Your task to perform on an android device: open device folders in google photos Image 0: 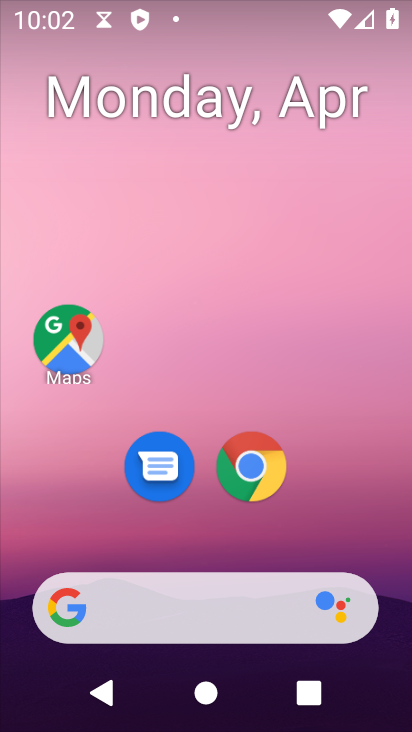
Step 0: drag from (225, 548) to (253, 45)
Your task to perform on an android device: open device folders in google photos Image 1: 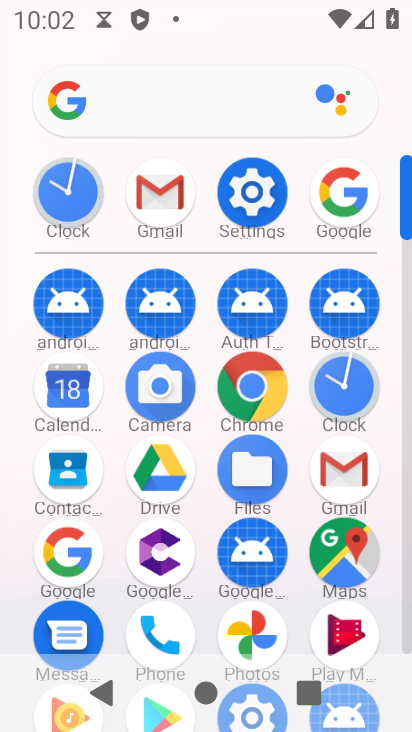
Step 1: drag from (208, 448) to (218, 151)
Your task to perform on an android device: open device folders in google photos Image 2: 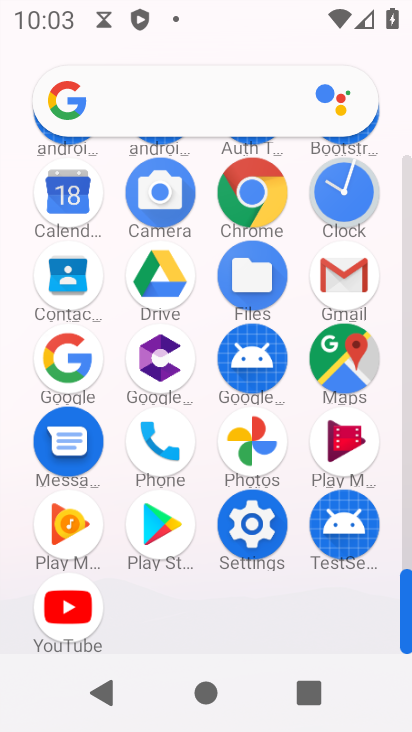
Step 2: click (259, 439)
Your task to perform on an android device: open device folders in google photos Image 3: 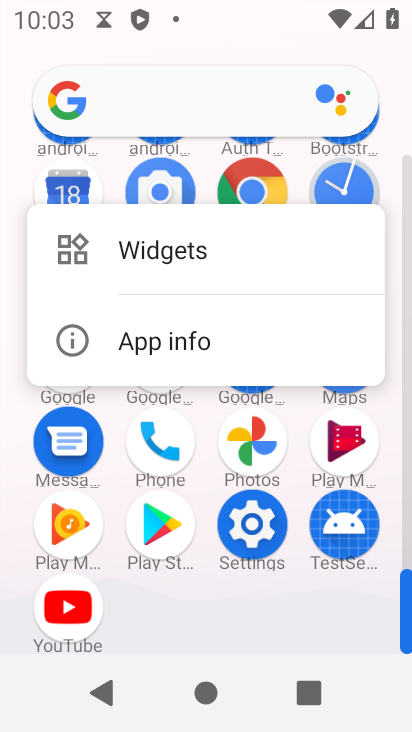
Step 3: click (259, 439)
Your task to perform on an android device: open device folders in google photos Image 4: 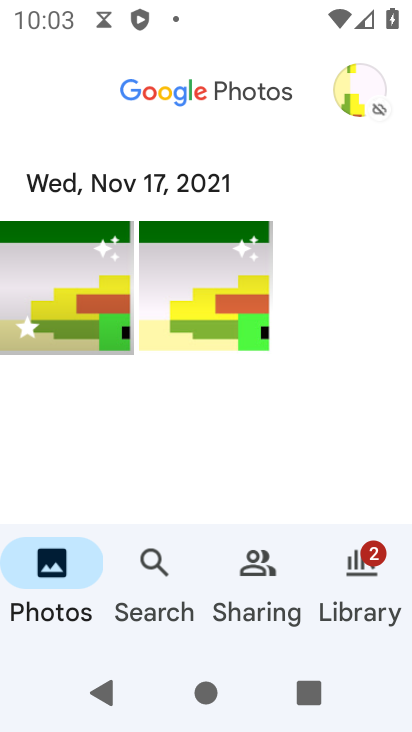
Step 4: click (356, 92)
Your task to perform on an android device: open device folders in google photos Image 5: 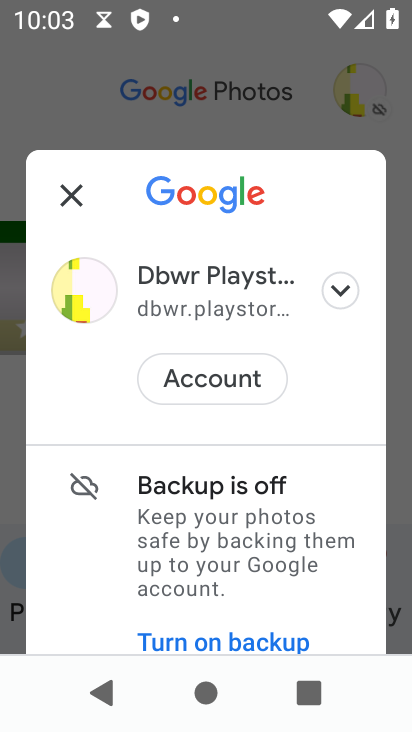
Step 5: drag from (207, 550) to (267, 337)
Your task to perform on an android device: open device folders in google photos Image 6: 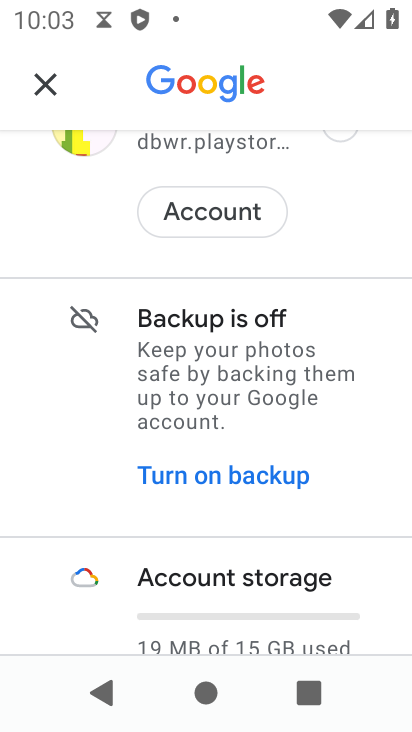
Step 6: drag from (201, 554) to (278, 420)
Your task to perform on an android device: open device folders in google photos Image 7: 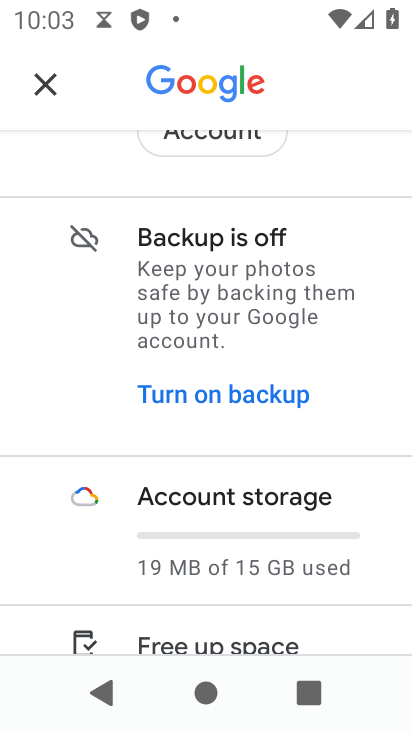
Step 7: drag from (214, 555) to (288, 432)
Your task to perform on an android device: open device folders in google photos Image 8: 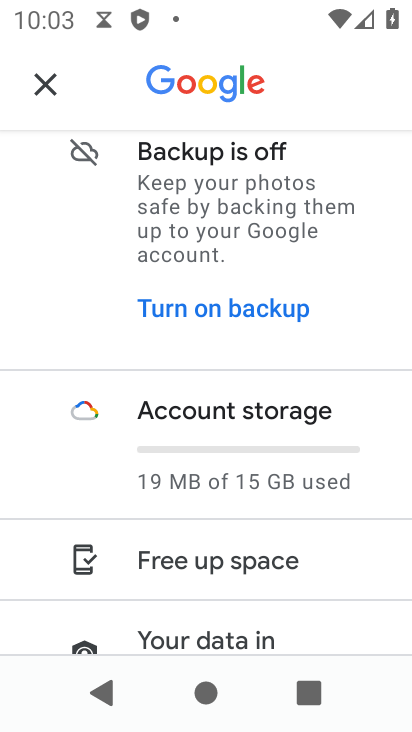
Step 8: drag from (223, 556) to (314, 426)
Your task to perform on an android device: open device folders in google photos Image 9: 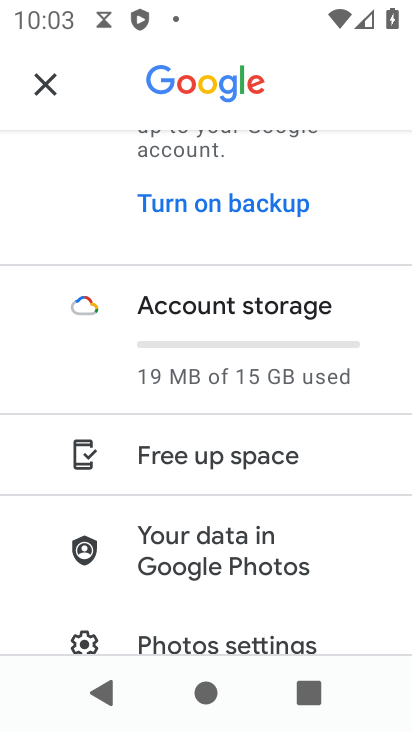
Step 9: drag from (258, 561) to (288, 463)
Your task to perform on an android device: open device folders in google photos Image 10: 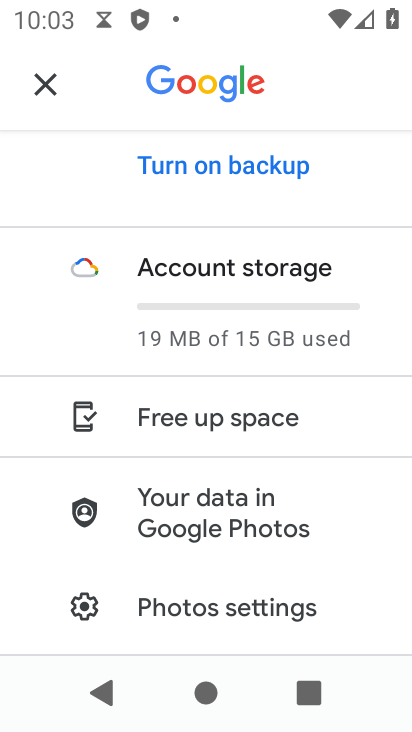
Step 10: drag from (188, 570) to (209, 492)
Your task to perform on an android device: open device folders in google photos Image 11: 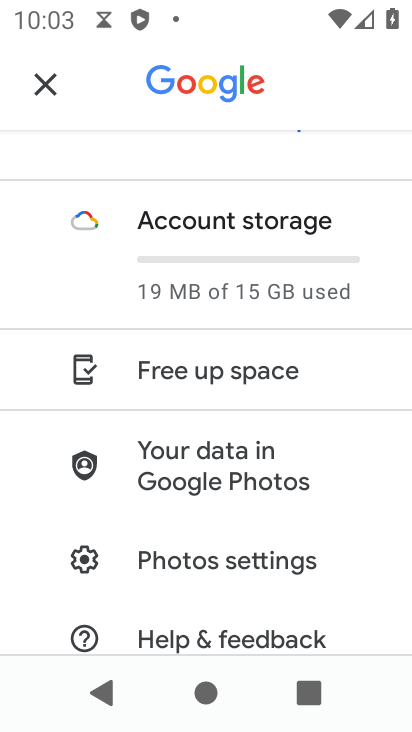
Step 11: click (214, 552)
Your task to perform on an android device: open device folders in google photos Image 12: 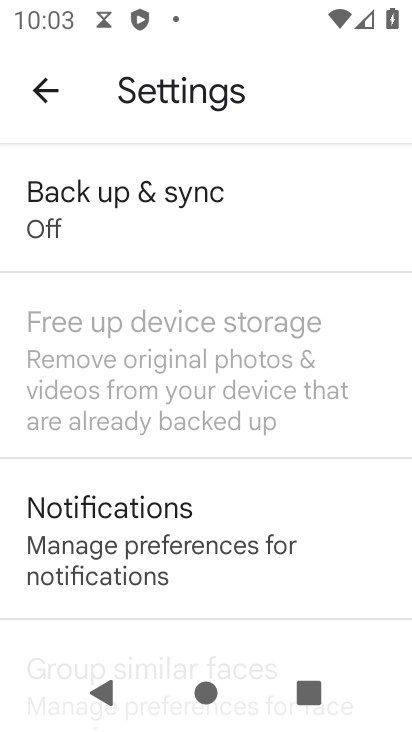
Step 12: click (137, 209)
Your task to perform on an android device: open device folders in google photos Image 13: 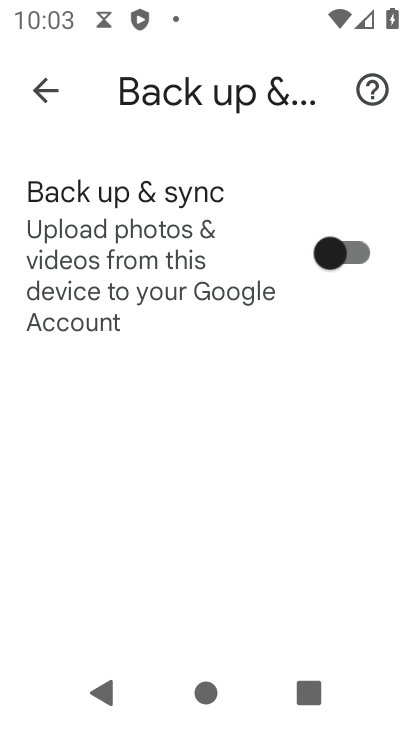
Step 13: drag from (191, 483) to (162, 346)
Your task to perform on an android device: open device folders in google photos Image 14: 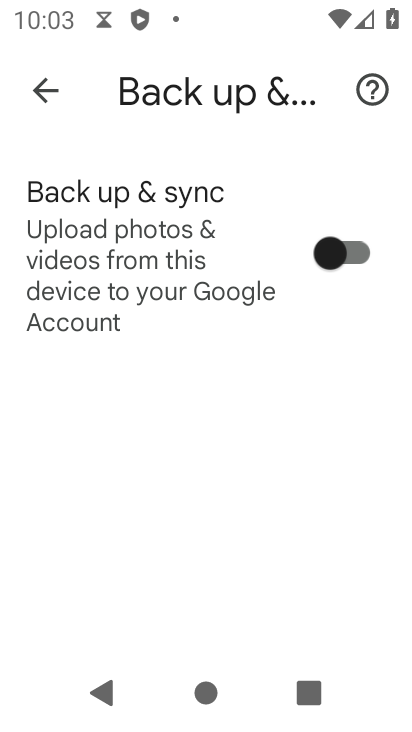
Step 14: press back button
Your task to perform on an android device: open device folders in google photos Image 15: 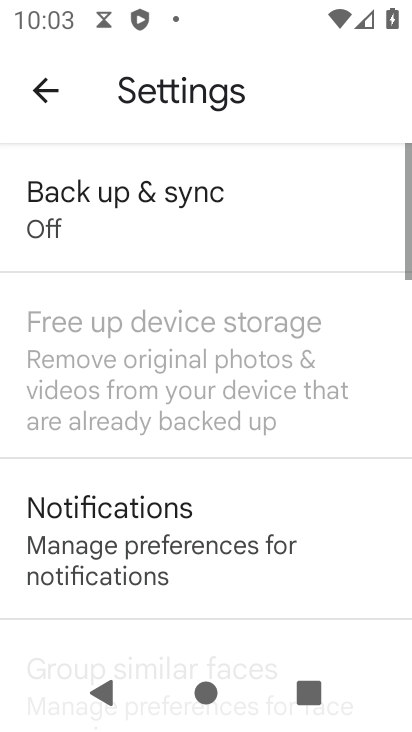
Step 15: drag from (193, 488) to (195, 426)
Your task to perform on an android device: open device folders in google photos Image 16: 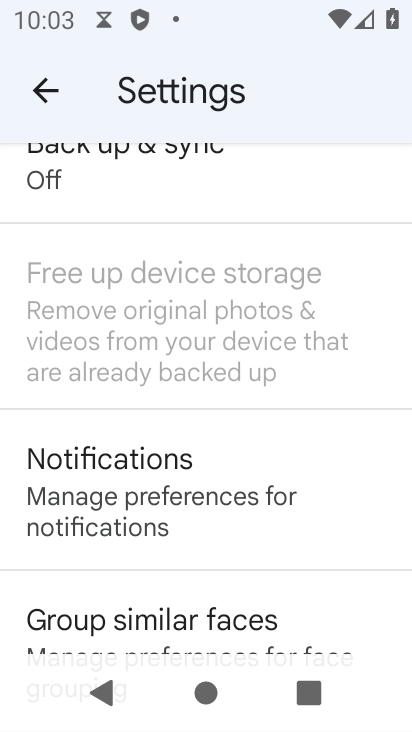
Step 16: drag from (191, 513) to (181, 436)
Your task to perform on an android device: open device folders in google photos Image 17: 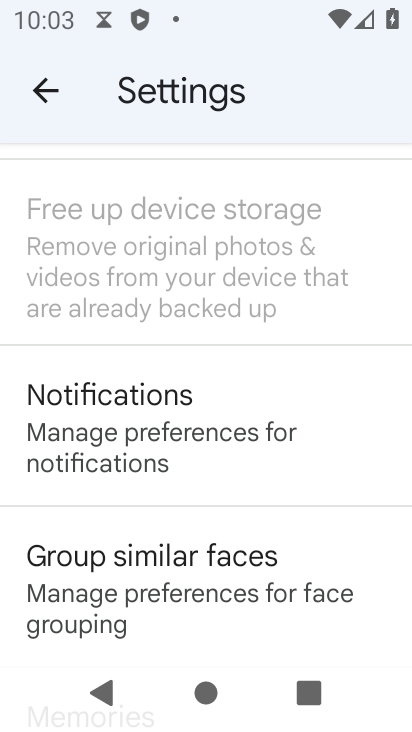
Step 17: drag from (187, 521) to (170, 407)
Your task to perform on an android device: open device folders in google photos Image 18: 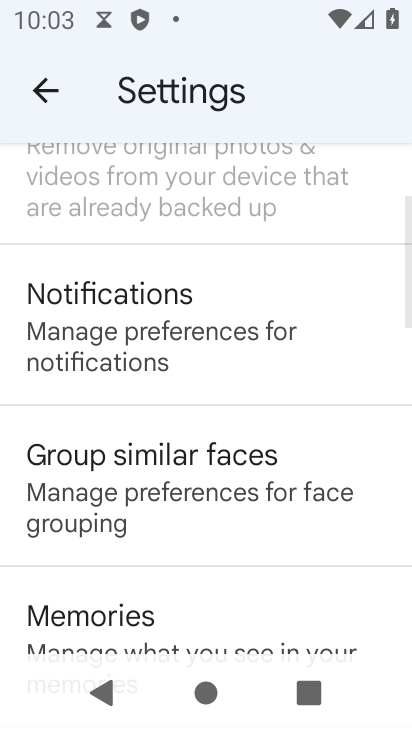
Step 18: drag from (167, 573) to (148, 461)
Your task to perform on an android device: open device folders in google photos Image 19: 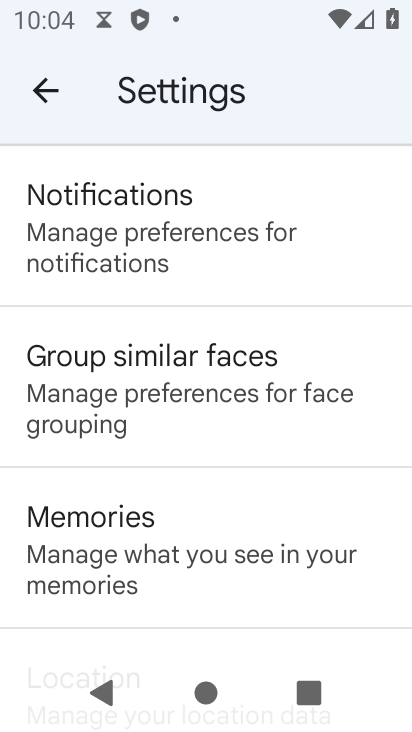
Step 19: drag from (127, 553) to (170, 430)
Your task to perform on an android device: open device folders in google photos Image 20: 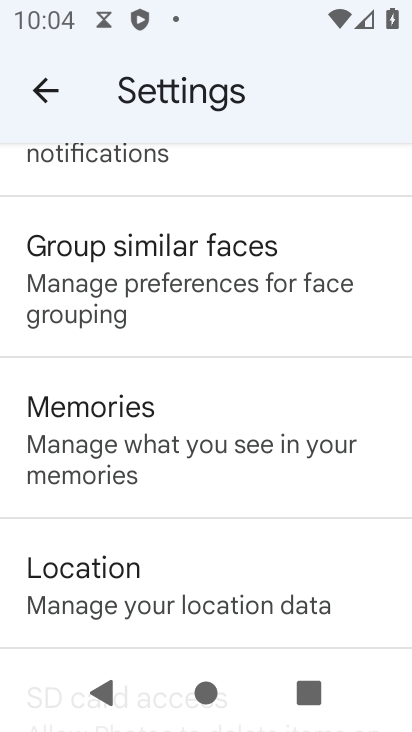
Step 20: drag from (250, 548) to (277, 405)
Your task to perform on an android device: open device folders in google photos Image 21: 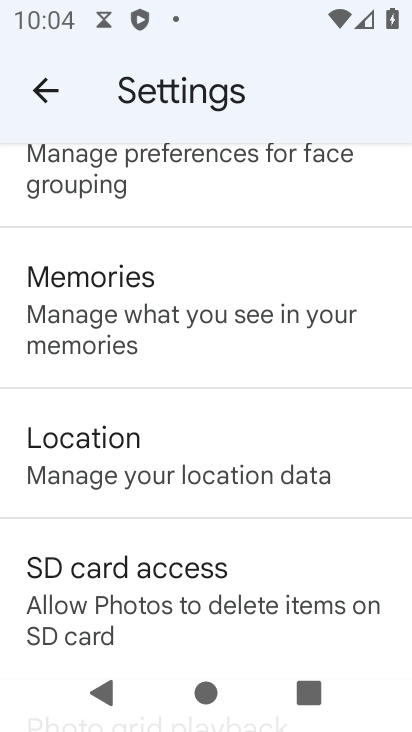
Step 21: drag from (223, 591) to (247, 409)
Your task to perform on an android device: open device folders in google photos Image 22: 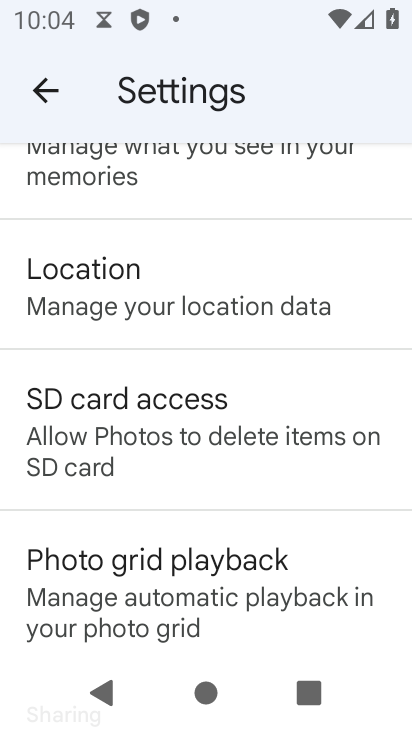
Step 22: press back button
Your task to perform on an android device: open device folders in google photos Image 23: 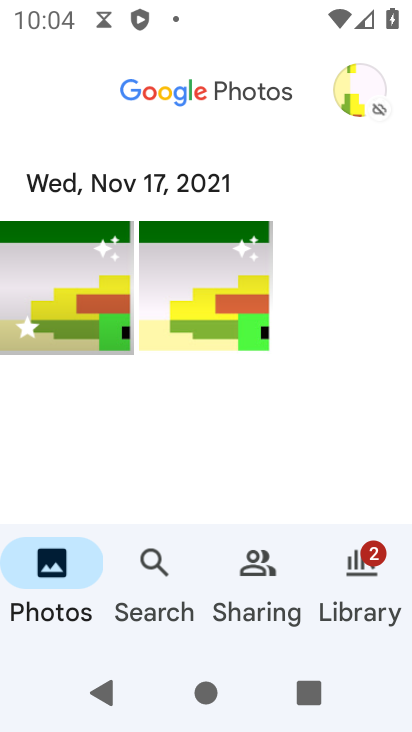
Step 23: click (365, 560)
Your task to perform on an android device: open device folders in google photos Image 24: 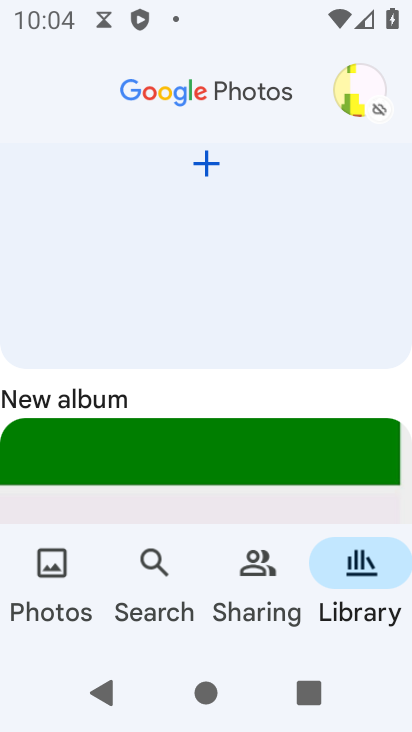
Step 24: drag from (244, 239) to (286, 467)
Your task to perform on an android device: open device folders in google photos Image 25: 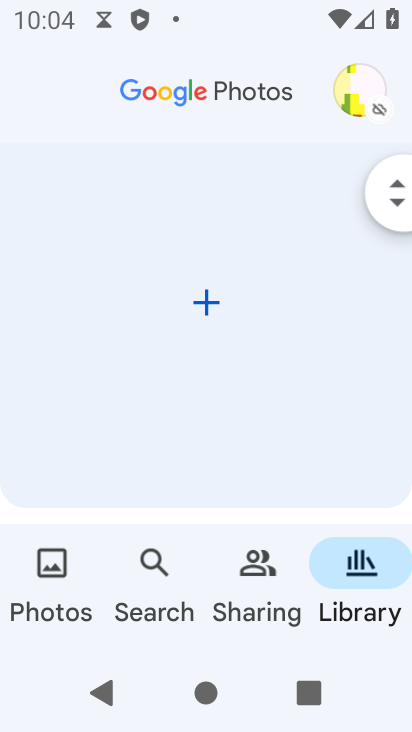
Step 25: drag from (232, 246) to (278, 461)
Your task to perform on an android device: open device folders in google photos Image 26: 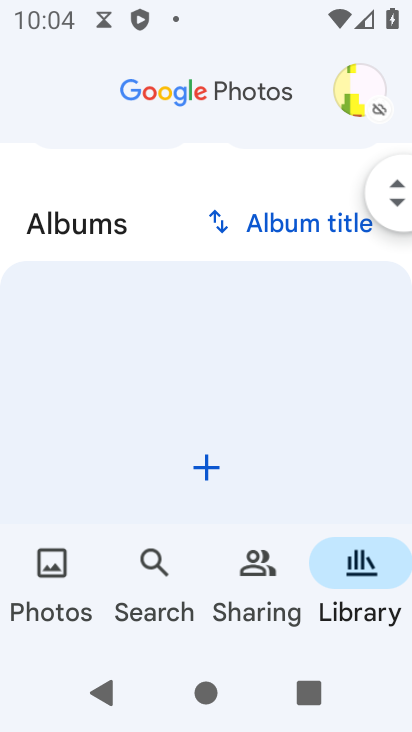
Step 26: drag from (241, 190) to (259, 451)
Your task to perform on an android device: open device folders in google photos Image 27: 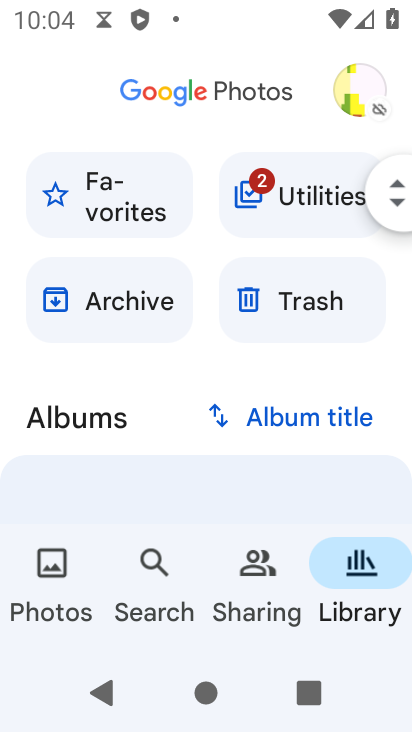
Step 27: drag from (259, 233) to (312, 469)
Your task to perform on an android device: open device folders in google photos Image 28: 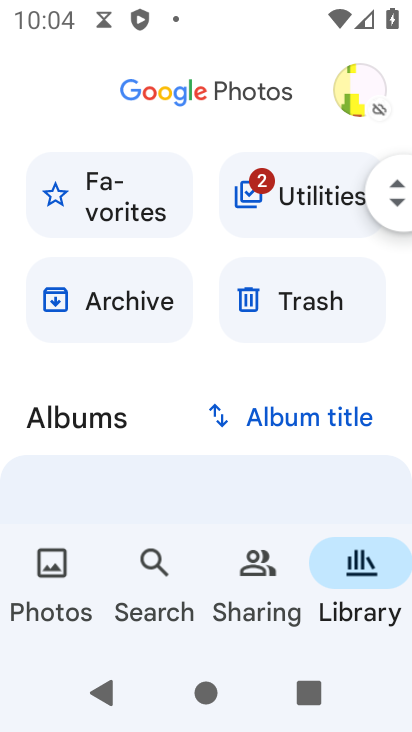
Step 28: click (258, 182)
Your task to perform on an android device: open device folders in google photos Image 29: 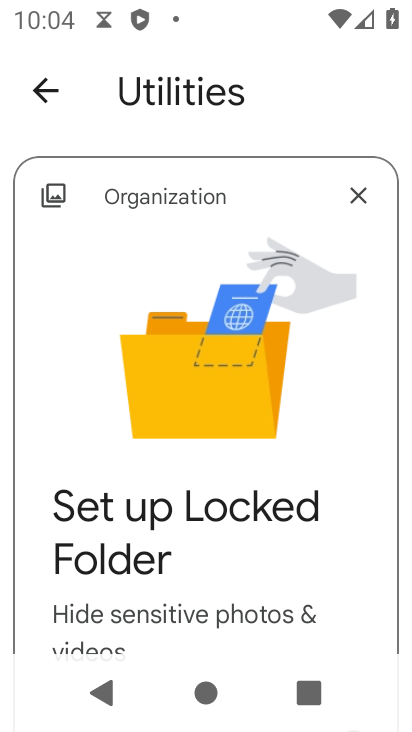
Step 29: drag from (244, 576) to (286, 348)
Your task to perform on an android device: open device folders in google photos Image 30: 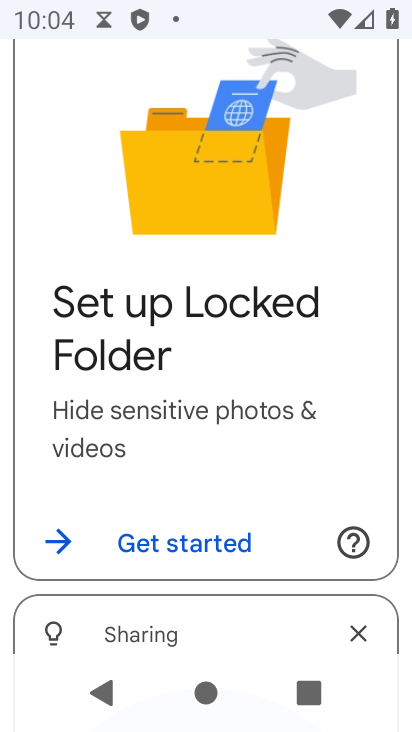
Step 30: drag from (278, 551) to (331, 335)
Your task to perform on an android device: open device folders in google photos Image 31: 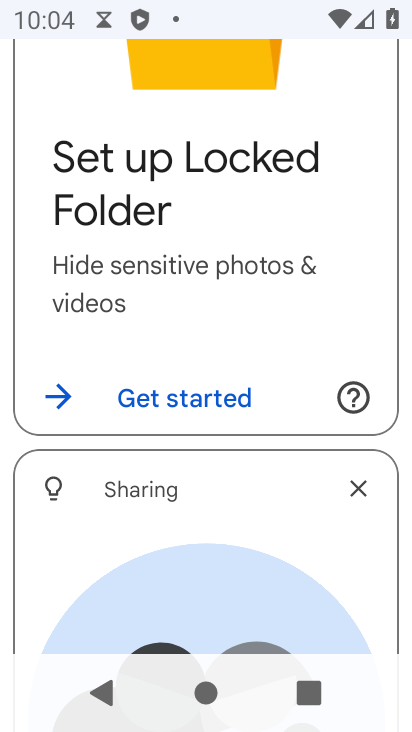
Step 31: drag from (224, 576) to (300, 333)
Your task to perform on an android device: open device folders in google photos Image 32: 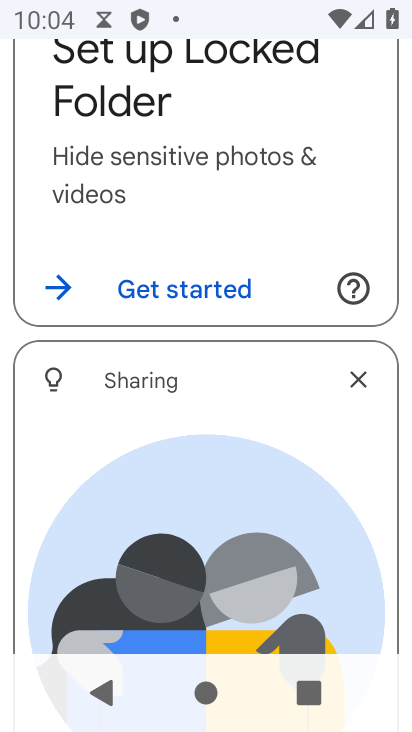
Step 32: drag from (247, 535) to (326, 284)
Your task to perform on an android device: open device folders in google photos Image 33: 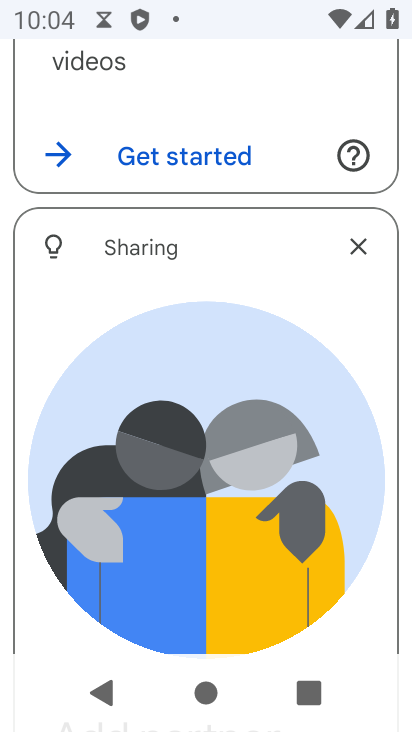
Step 33: drag from (245, 534) to (240, 229)
Your task to perform on an android device: open device folders in google photos Image 34: 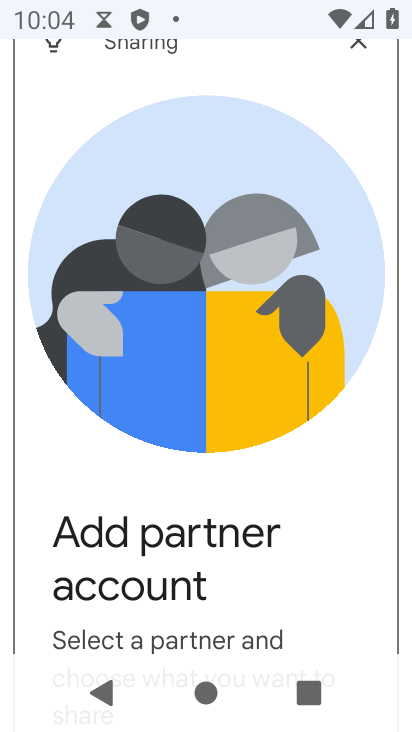
Step 34: drag from (339, 581) to (315, 323)
Your task to perform on an android device: open device folders in google photos Image 35: 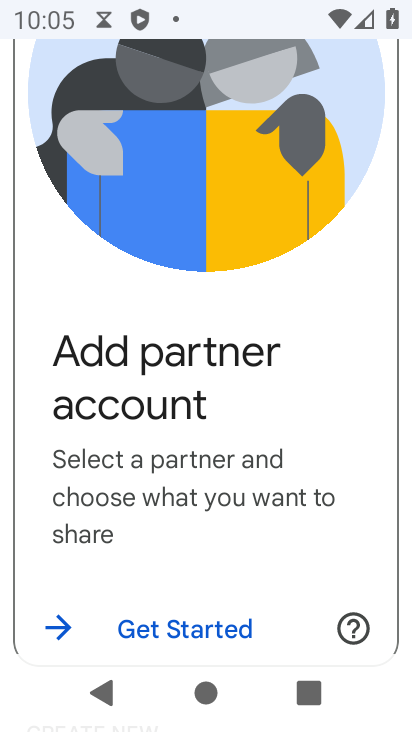
Step 35: drag from (255, 619) to (306, 381)
Your task to perform on an android device: open device folders in google photos Image 36: 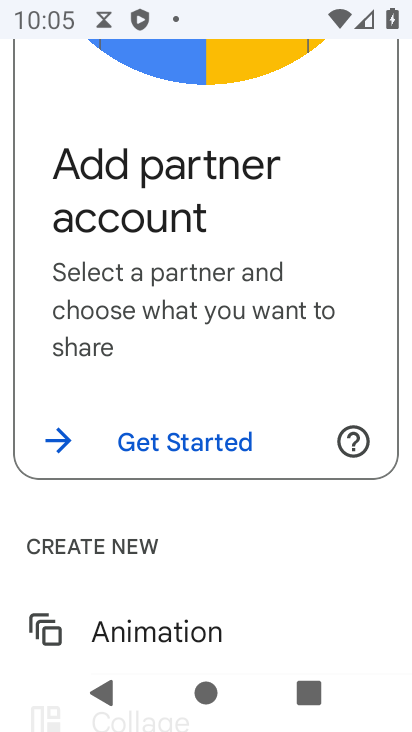
Step 36: drag from (237, 594) to (283, 370)
Your task to perform on an android device: open device folders in google photos Image 37: 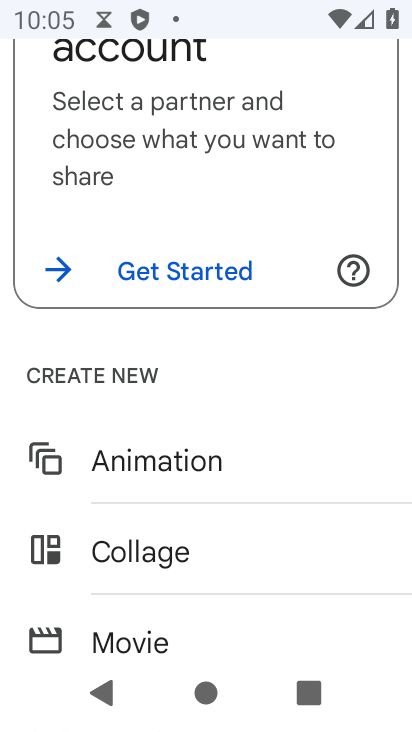
Step 37: drag from (207, 606) to (244, 409)
Your task to perform on an android device: open device folders in google photos Image 38: 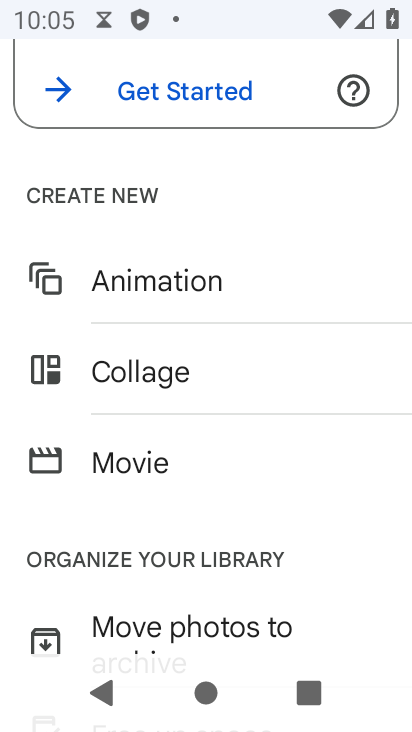
Step 38: drag from (248, 581) to (263, 444)
Your task to perform on an android device: open device folders in google photos Image 39: 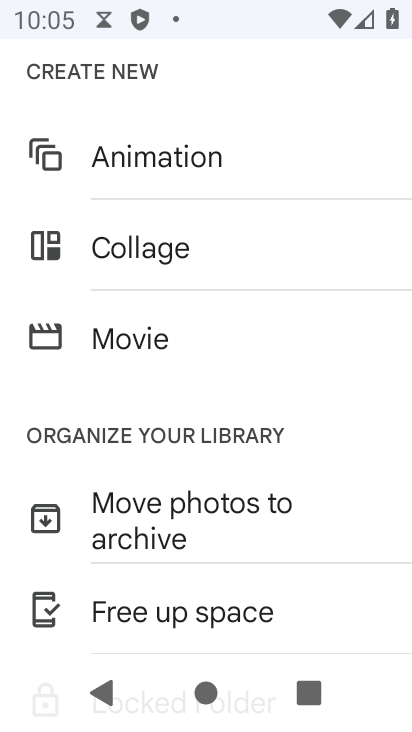
Step 39: drag from (273, 560) to (301, 459)
Your task to perform on an android device: open device folders in google photos Image 40: 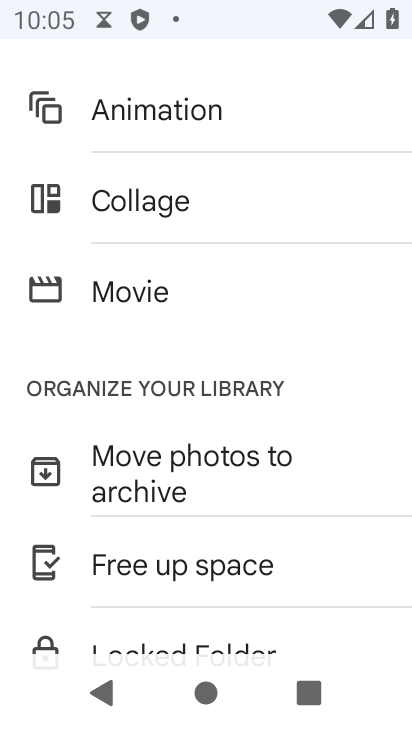
Step 40: drag from (268, 545) to (339, 423)
Your task to perform on an android device: open device folders in google photos Image 41: 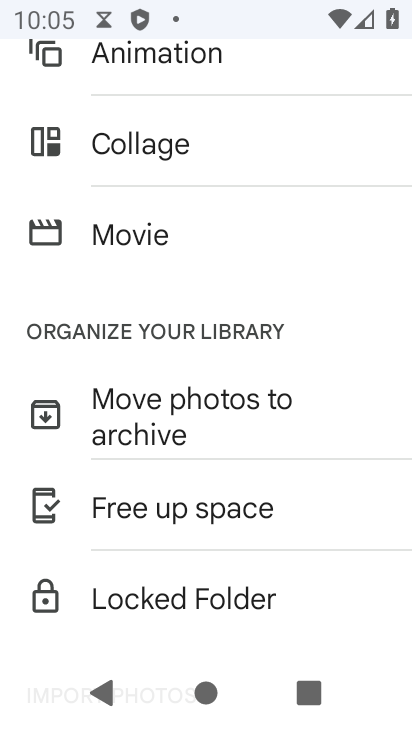
Step 41: drag from (223, 594) to (265, 518)
Your task to perform on an android device: open device folders in google photos Image 42: 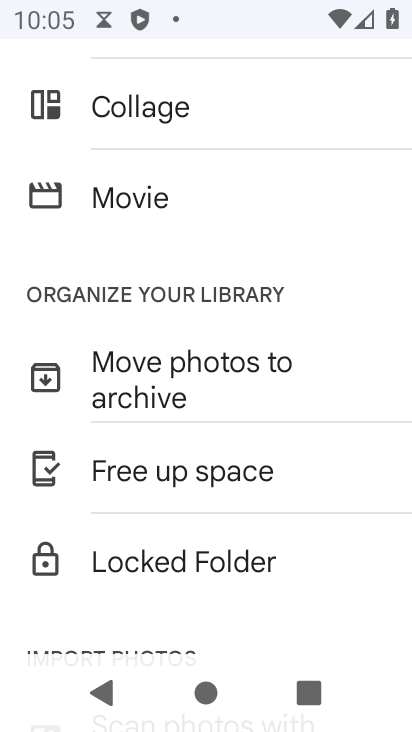
Step 42: click (239, 555)
Your task to perform on an android device: open device folders in google photos Image 43: 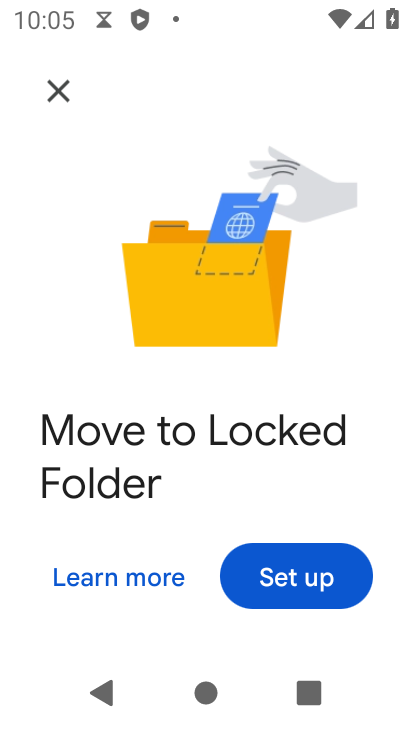
Step 43: drag from (214, 608) to (291, 377)
Your task to perform on an android device: open device folders in google photos Image 44: 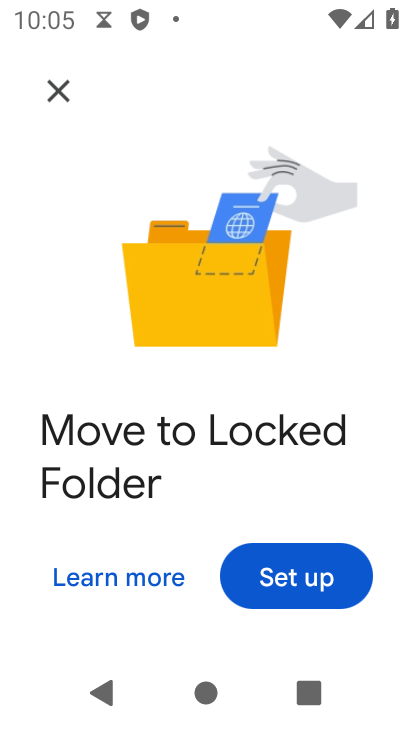
Step 44: press back button
Your task to perform on an android device: open device folders in google photos Image 45: 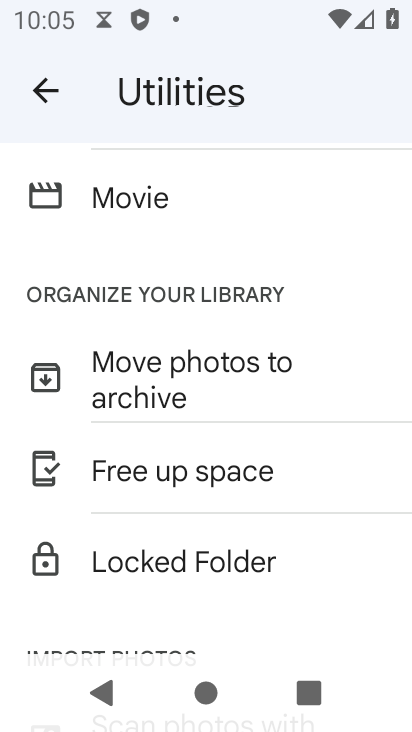
Step 45: drag from (206, 532) to (240, 378)
Your task to perform on an android device: open device folders in google photos Image 46: 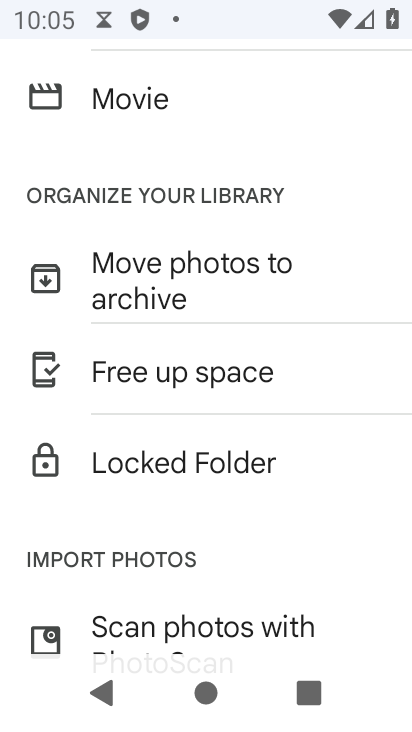
Step 46: drag from (212, 542) to (223, 417)
Your task to perform on an android device: open device folders in google photos Image 47: 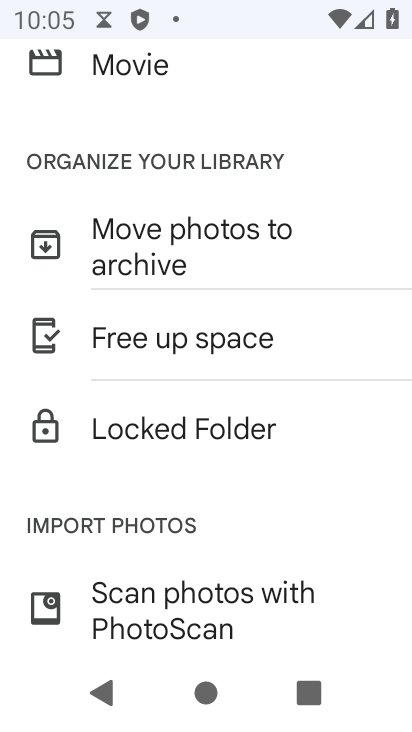
Step 47: drag from (206, 627) to (200, 472)
Your task to perform on an android device: open device folders in google photos Image 48: 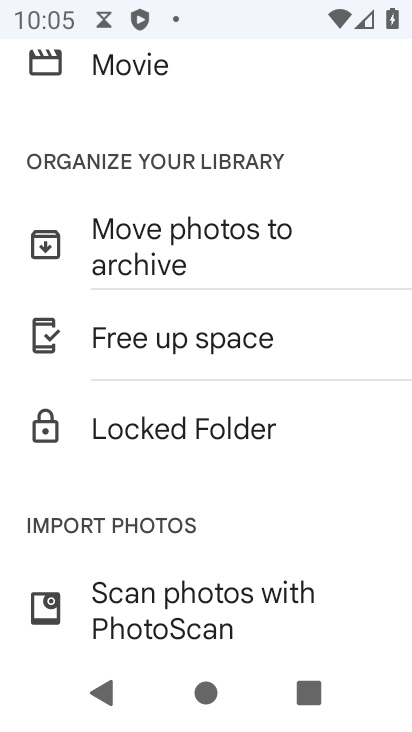
Step 48: drag from (247, 279) to (292, 449)
Your task to perform on an android device: open device folders in google photos Image 49: 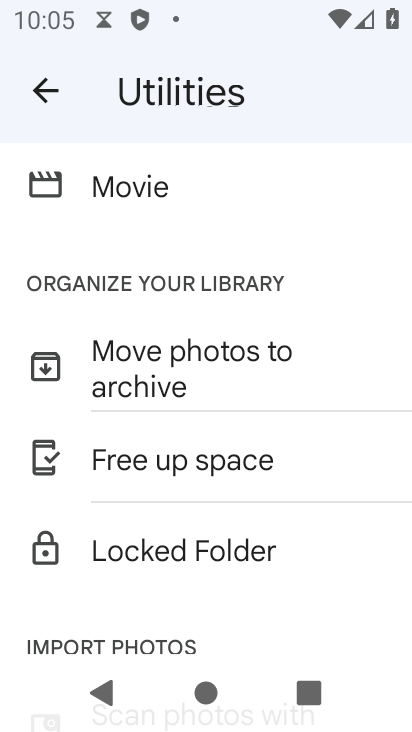
Step 49: drag from (267, 335) to (292, 456)
Your task to perform on an android device: open device folders in google photos Image 50: 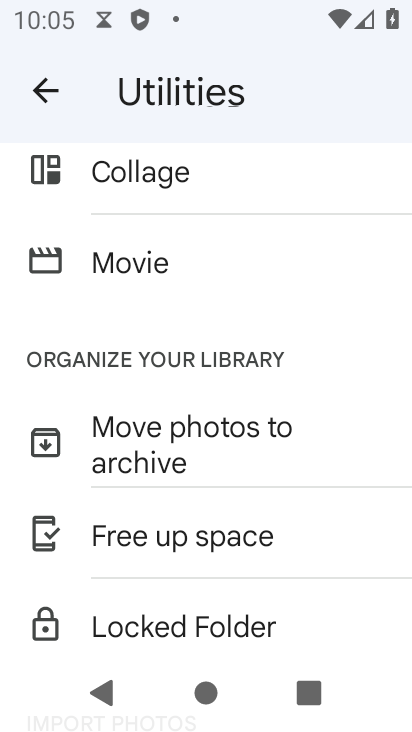
Step 50: drag from (235, 365) to (263, 466)
Your task to perform on an android device: open device folders in google photos Image 51: 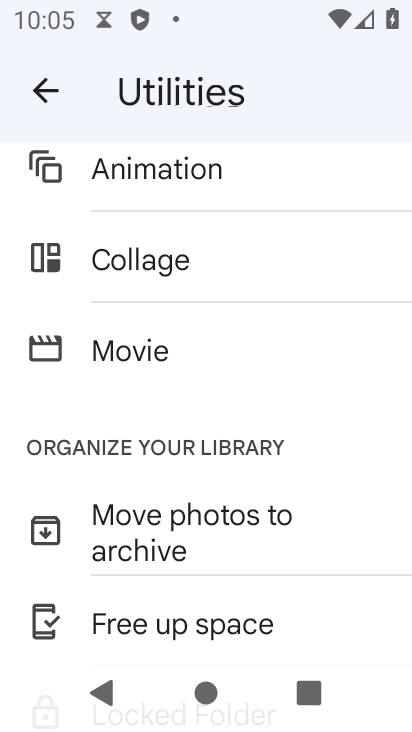
Step 51: press back button
Your task to perform on an android device: open device folders in google photos Image 52: 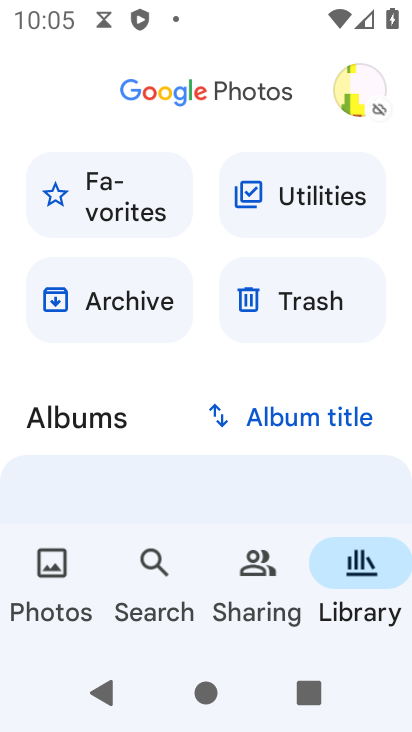
Step 52: click (125, 301)
Your task to perform on an android device: open device folders in google photos Image 53: 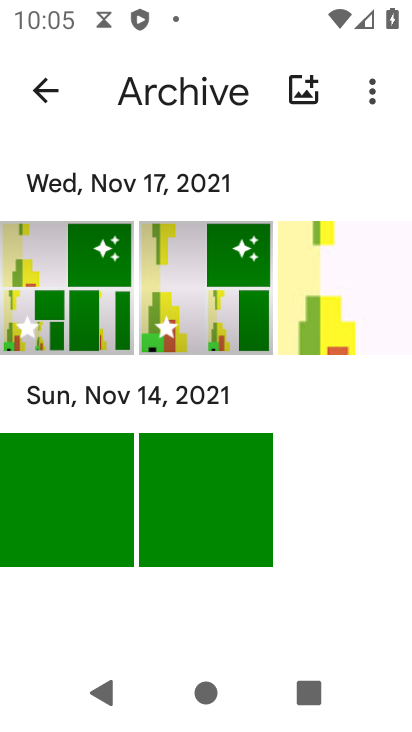
Step 53: click (380, 96)
Your task to perform on an android device: open device folders in google photos Image 54: 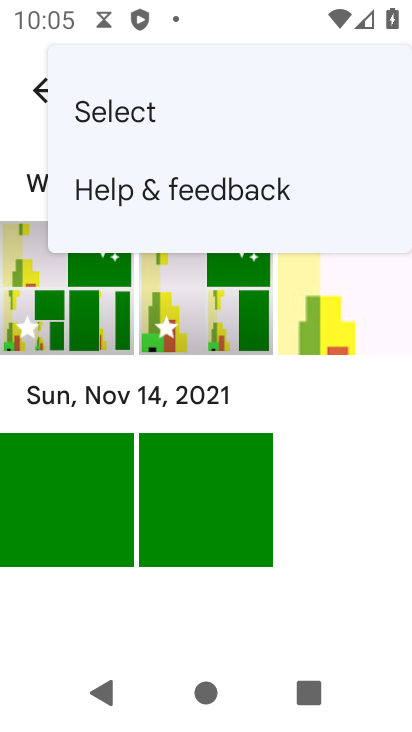
Step 54: click (324, 375)
Your task to perform on an android device: open device folders in google photos Image 55: 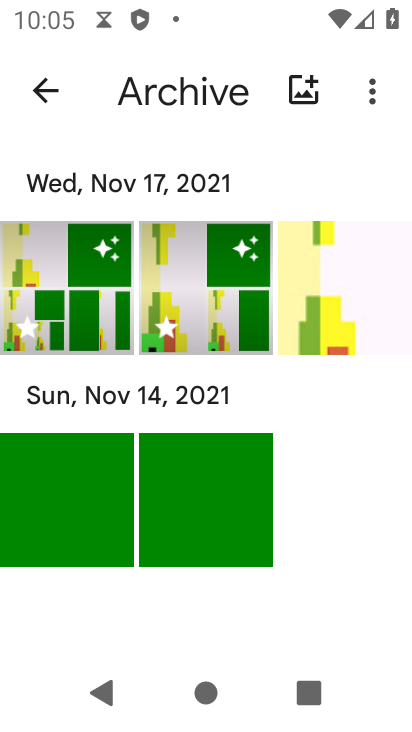
Step 55: press back button
Your task to perform on an android device: open device folders in google photos Image 56: 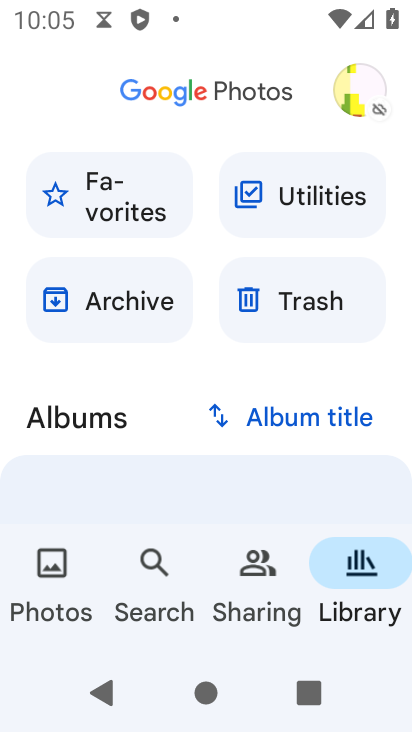
Step 56: click (285, 302)
Your task to perform on an android device: open device folders in google photos Image 57: 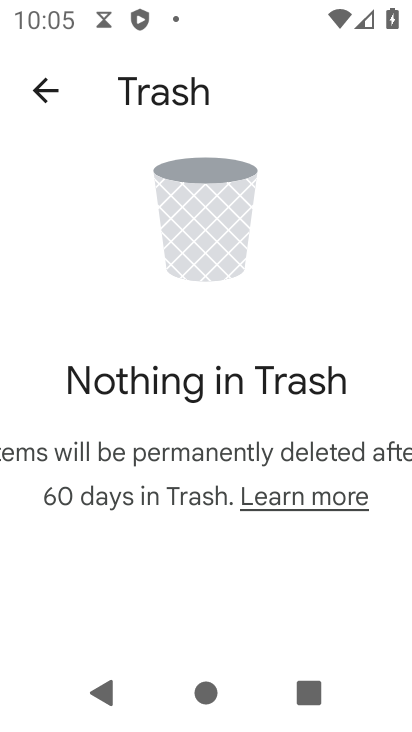
Step 57: press back button
Your task to perform on an android device: open device folders in google photos Image 58: 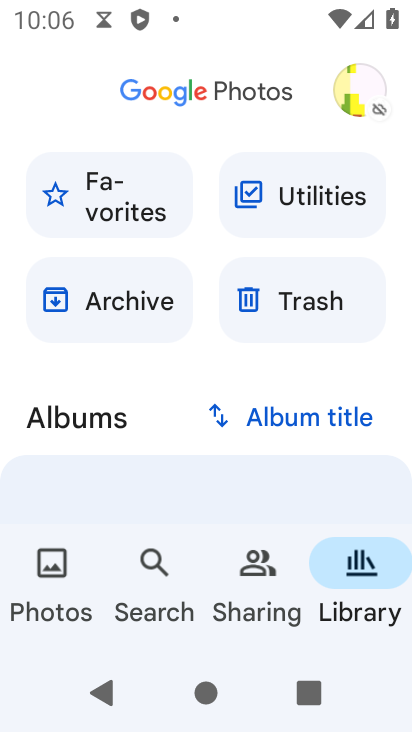
Step 58: click (125, 197)
Your task to perform on an android device: open device folders in google photos Image 59: 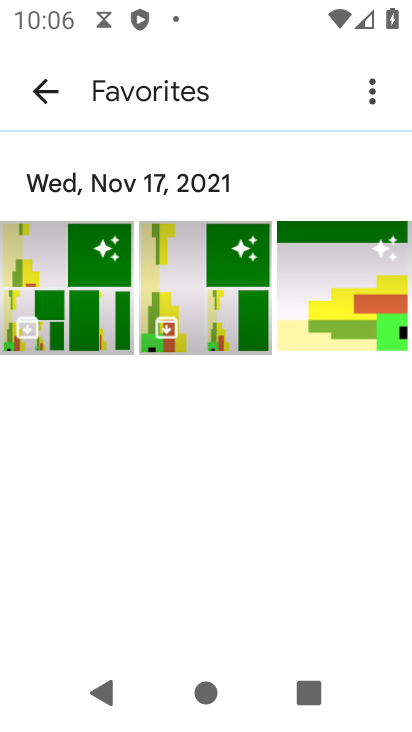
Step 59: task complete